Your task to perform on an android device: Go to Reddit.com Image 0: 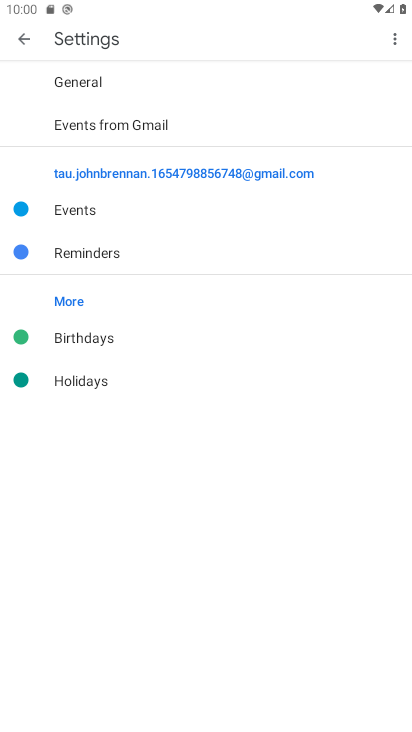
Step 0: press home button
Your task to perform on an android device: Go to Reddit.com Image 1: 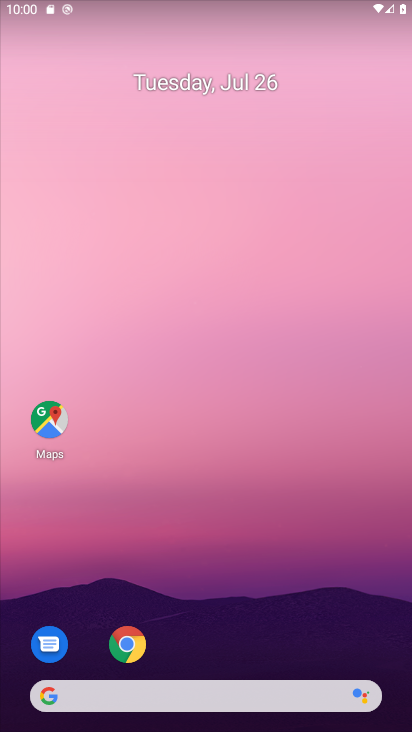
Step 1: click (124, 647)
Your task to perform on an android device: Go to Reddit.com Image 2: 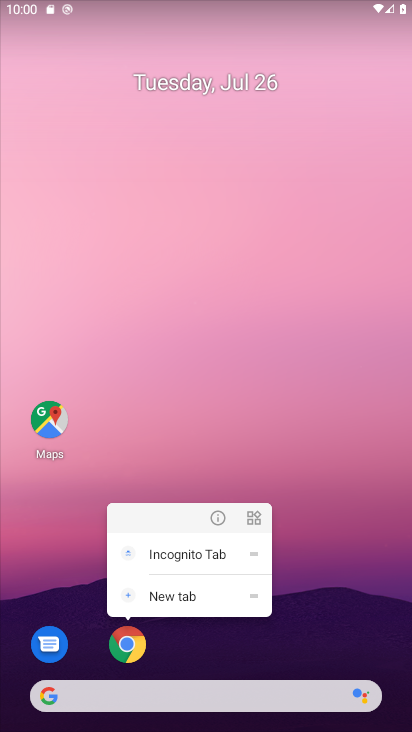
Step 2: click (125, 643)
Your task to perform on an android device: Go to Reddit.com Image 3: 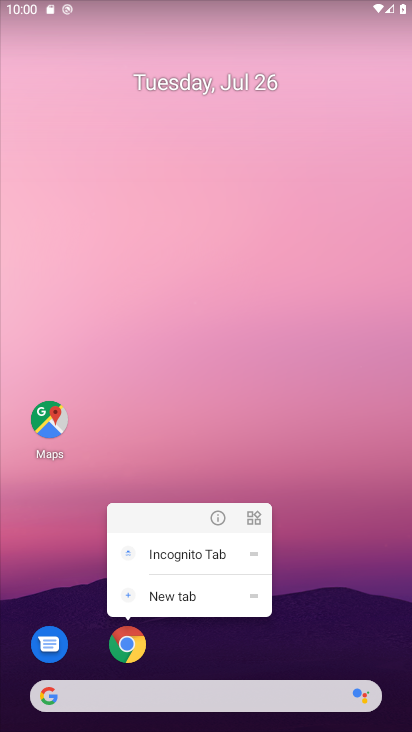
Step 3: click (129, 636)
Your task to perform on an android device: Go to Reddit.com Image 4: 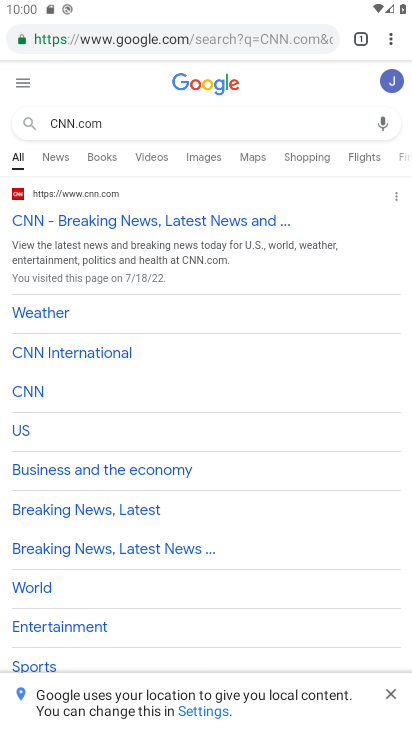
Step 4: click (161, 38)
Your task to perform on an android device: Go to Reddit.com Image 5: 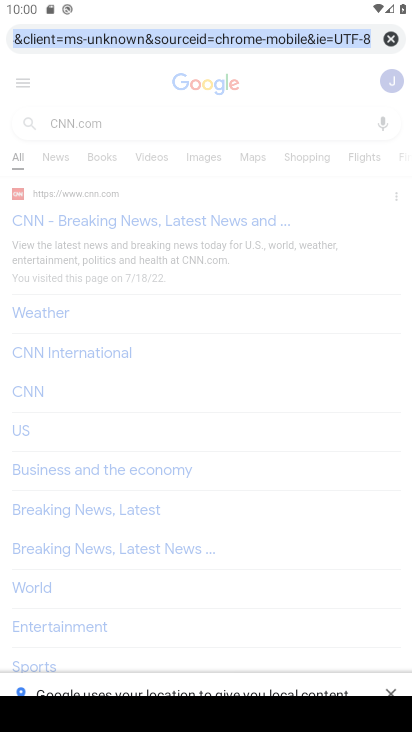
Step 5: type "Reddit.com"
Your task to perform on an android device: Go to Reddit.com Image 6: 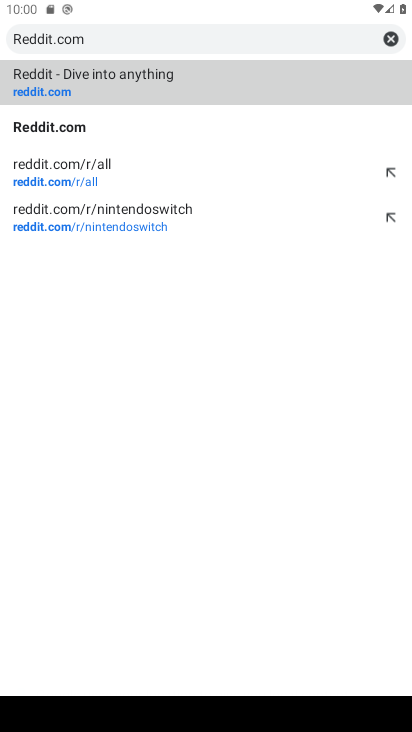
Step 6: click (149, 70)
Your task to perform on an android device: Go to Reddit.com Image 7: 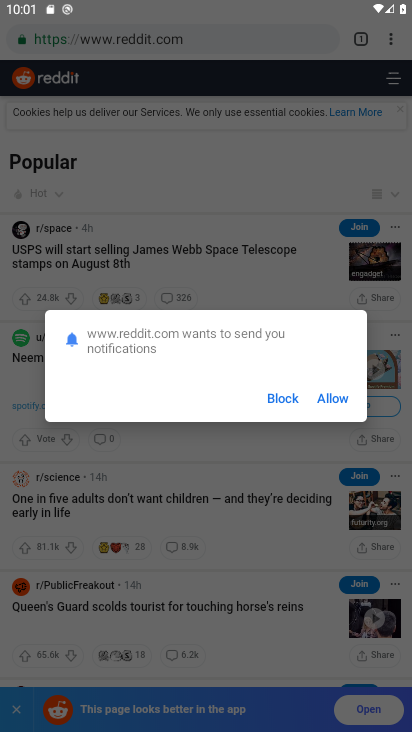
Step 7: click (326, 402)
Your task to perform on an android device: Go to Reddit.com Image 8: 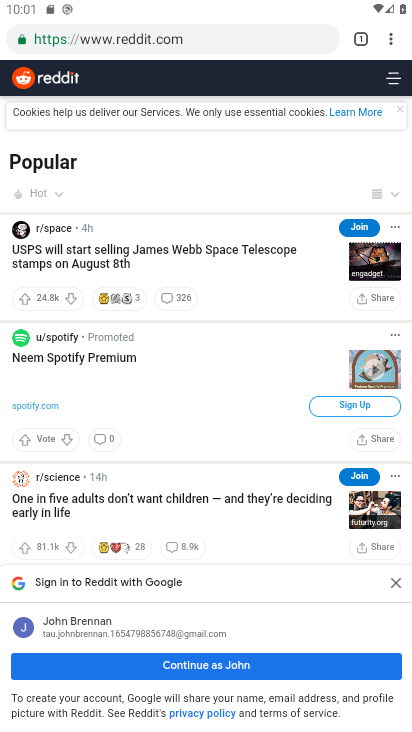
Step 8: task complete